Your task to perform on an android device: Add "logitech g910" to the cart on amazon Image 0: 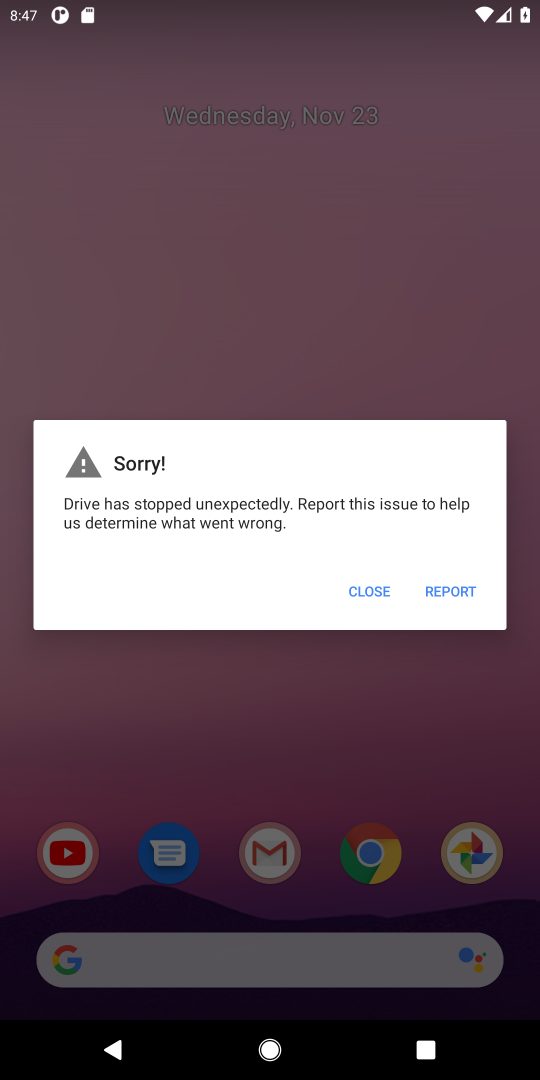
Step 0: press home button
Your task to perform on an android device: Add "logitech g910" to the cart on amazon Image 1: 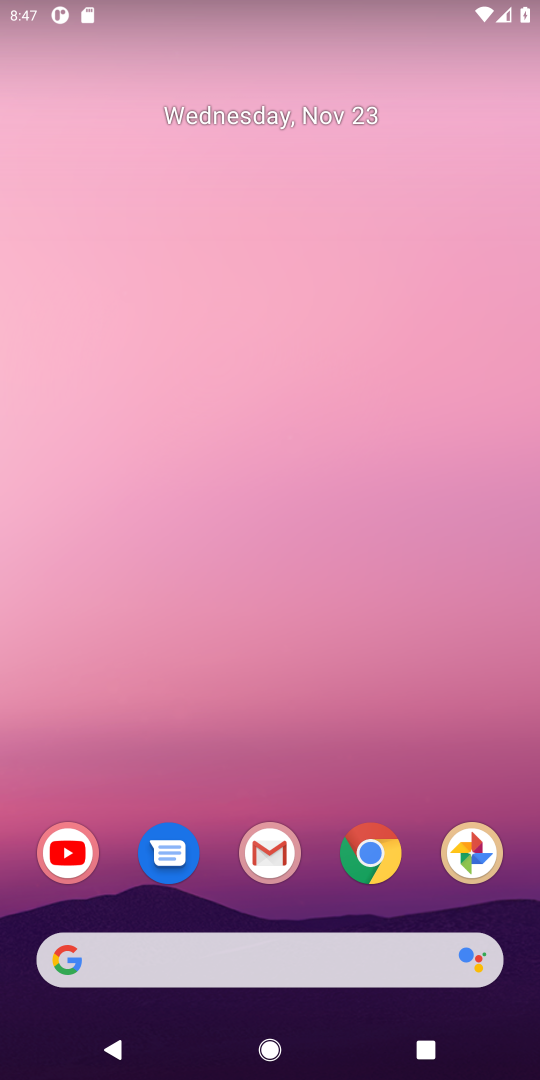
Step 1: click (375, 863)
Your task to perform on an android device: Add "logitech g910" to the cart on amazon Image 2: 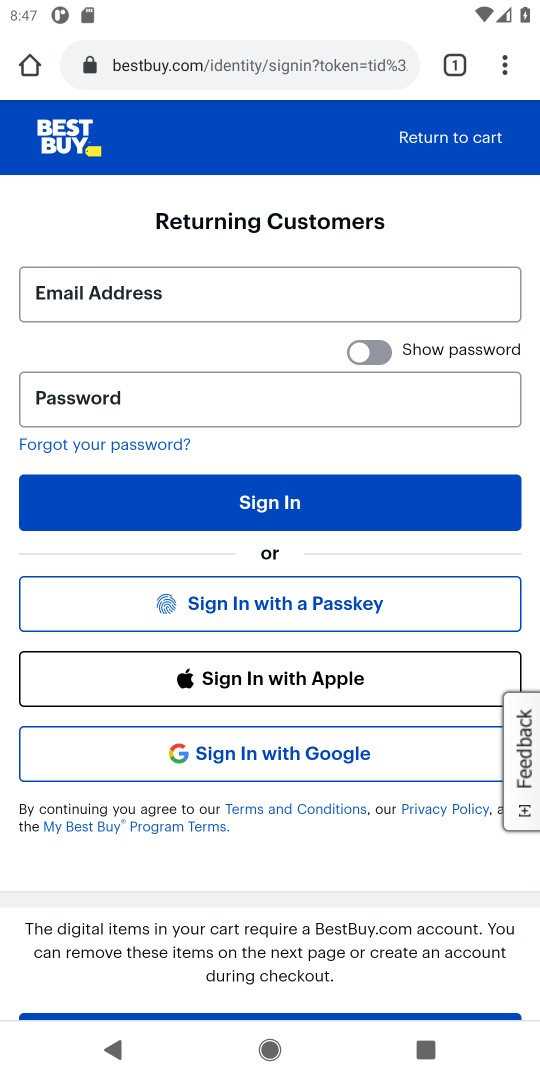
Step 2: click (179, 60)
Your task to perform on an android device: Add "logitech g910" to the cart on amazon Image 3: 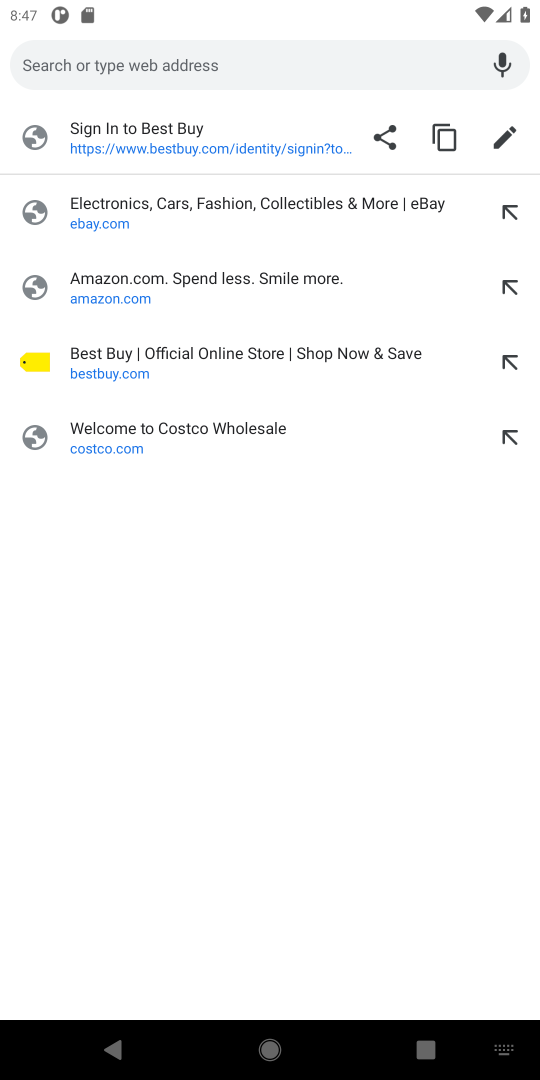
Step 3: click (105, 297)
Your task to perform on an android device: Add "logitech g910" to the cart on amazon Image 4: 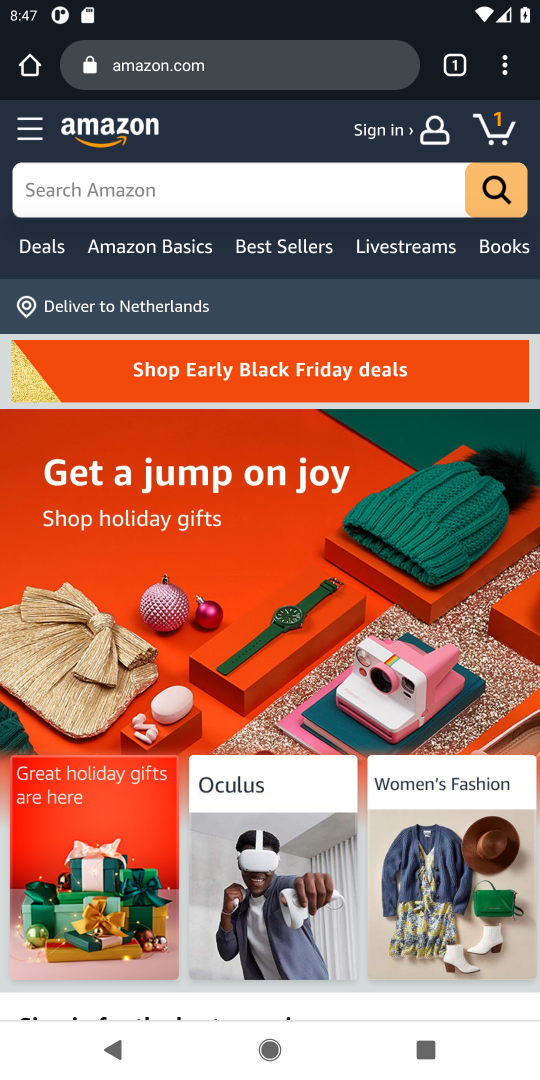
Step 4: click (108, 188)
Your task to perform on an android device: Add "logitech g910" to the cart on amazon Image 5: 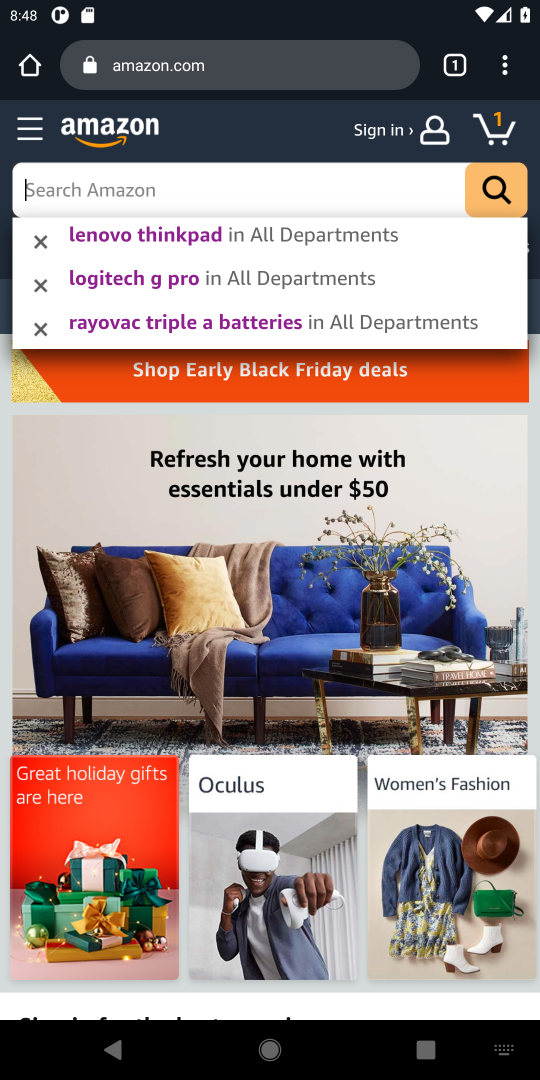
Step 5: type "logitech g910"
Your task to perform on an android device: Add "logitech g910" to the cart on amazon Image 6: 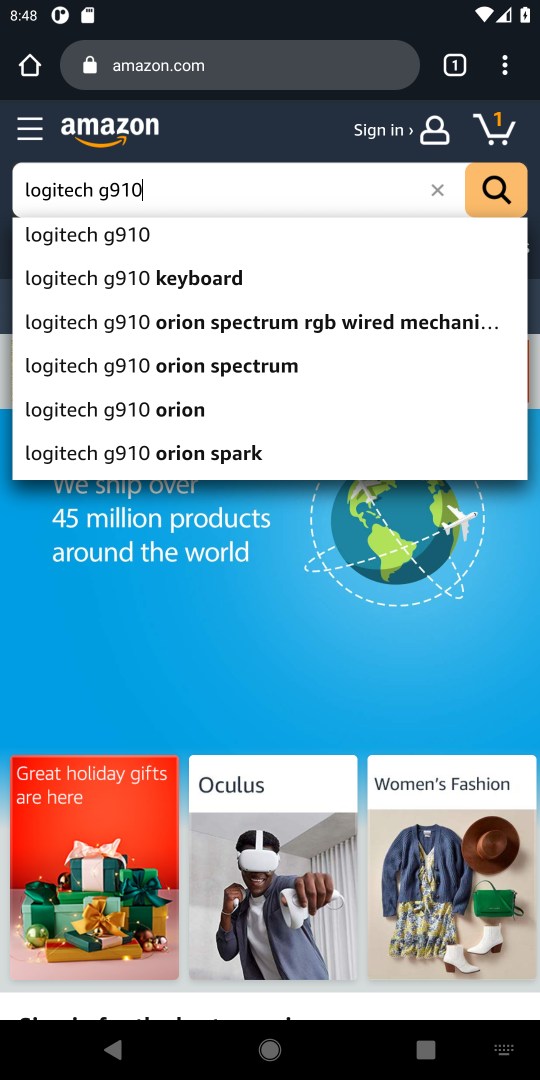
Step 6: click (120, 226)
Your task to perform on an android device: Add "logitech g910" to the cart on amazon Image 7: 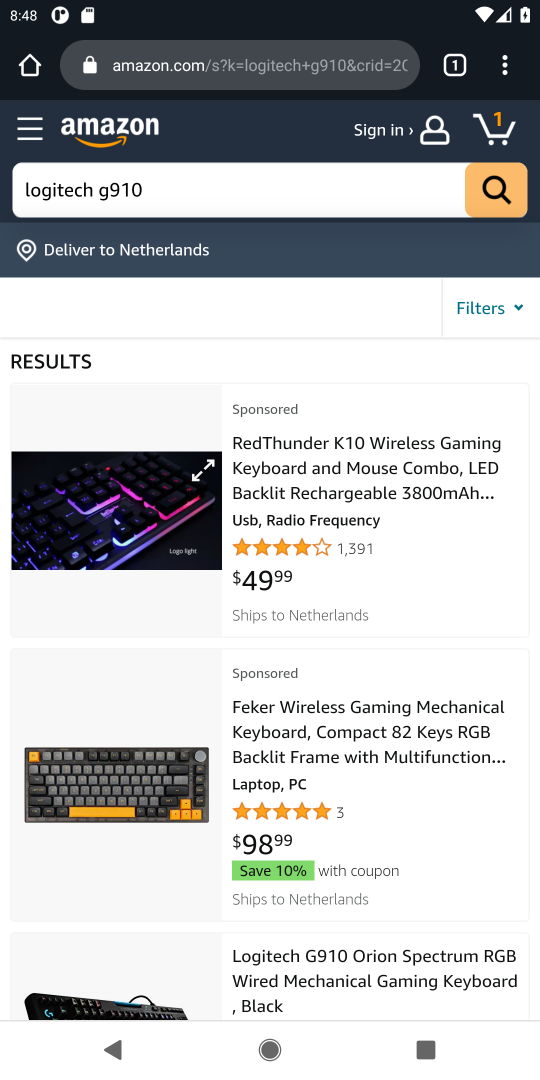
Step 7: drag from (218, 742) to (231, 486)
Your task to perform on an android device: Add "logitech g910" to the cart on amazon Image 8: 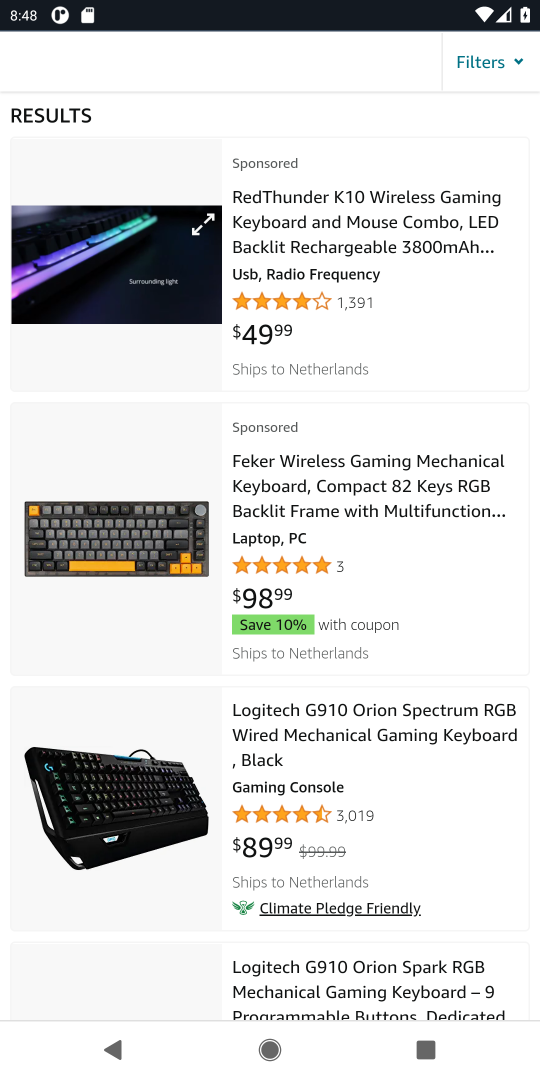
Step 8: click (103, 810)
Your task to perform on an android device: Add "logitech g910" to the cart on amazon Image 9: 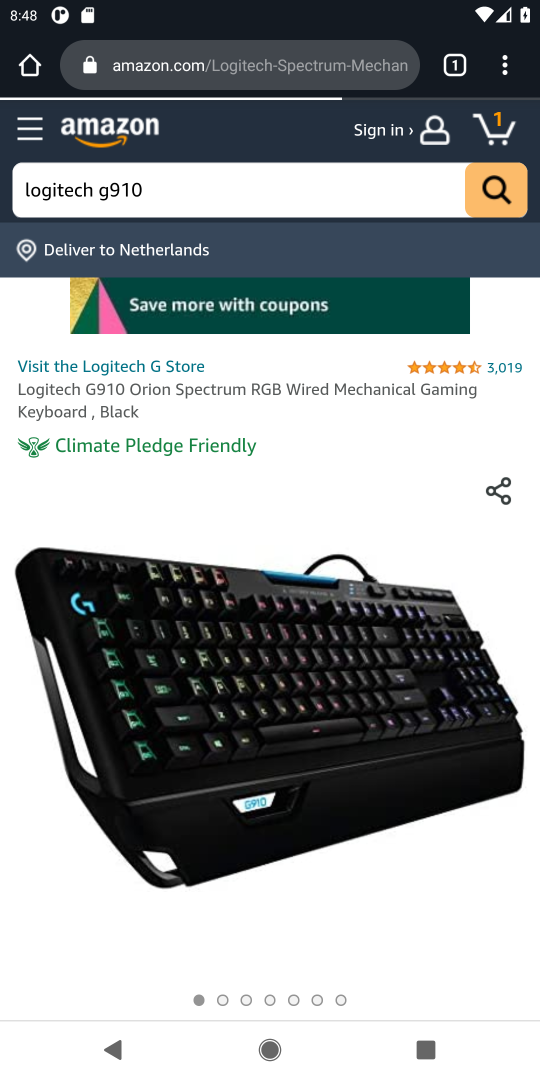
Step 9: drag from (200, 813) to (211, 335)
Your task to perform on an android device: Add "logitech g910" to the cart on amazon Image 10: 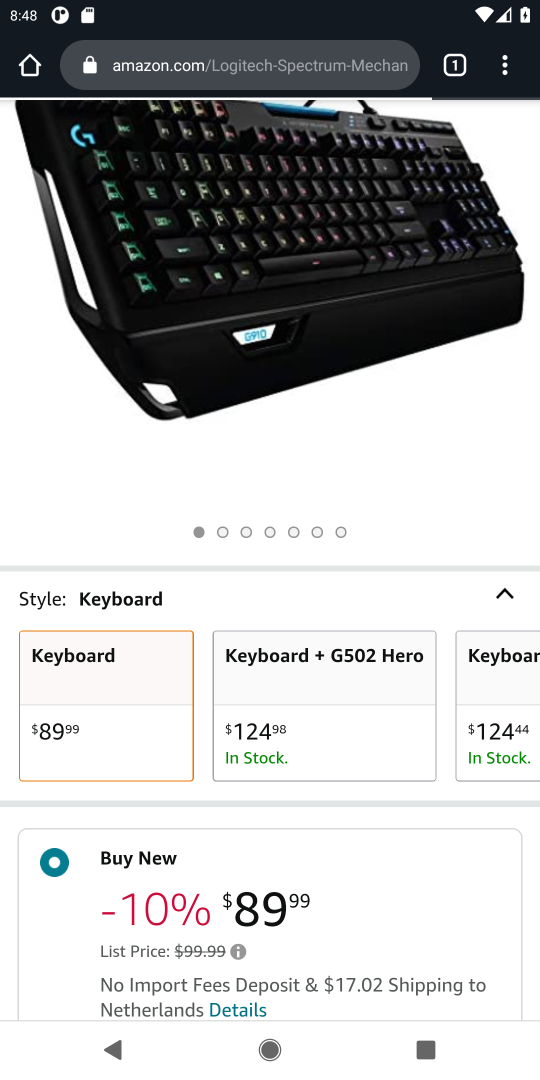
Step 10: drag from (215, 807) to (231, 304)
Your task to perform on an android device: Add "logitech g910" to the cart on amazon Image 11: 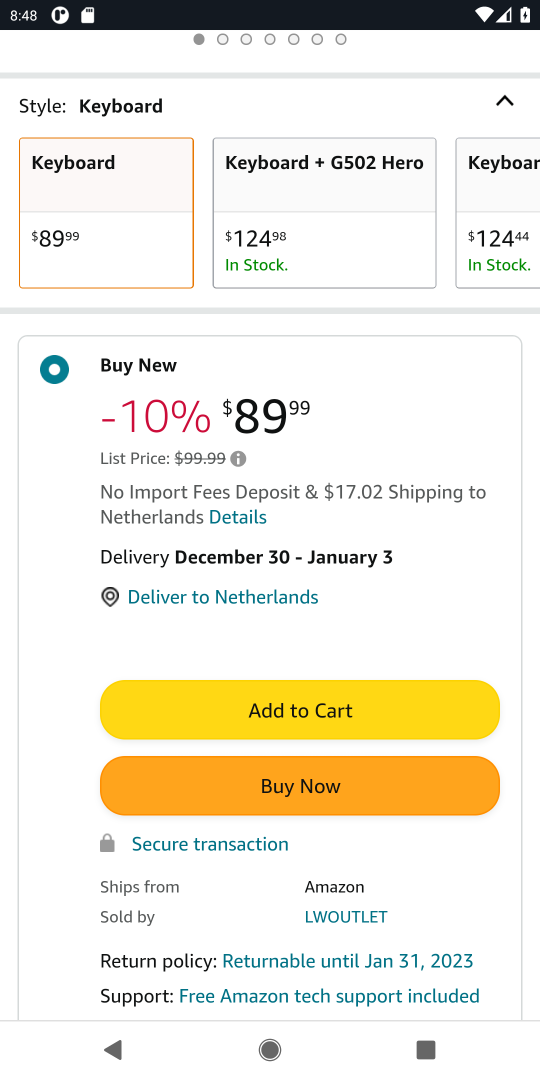
Step 11: click (253, 704)
Your task to perform on an android device: Add "logitech g910" to the cart on amazon Image 12: 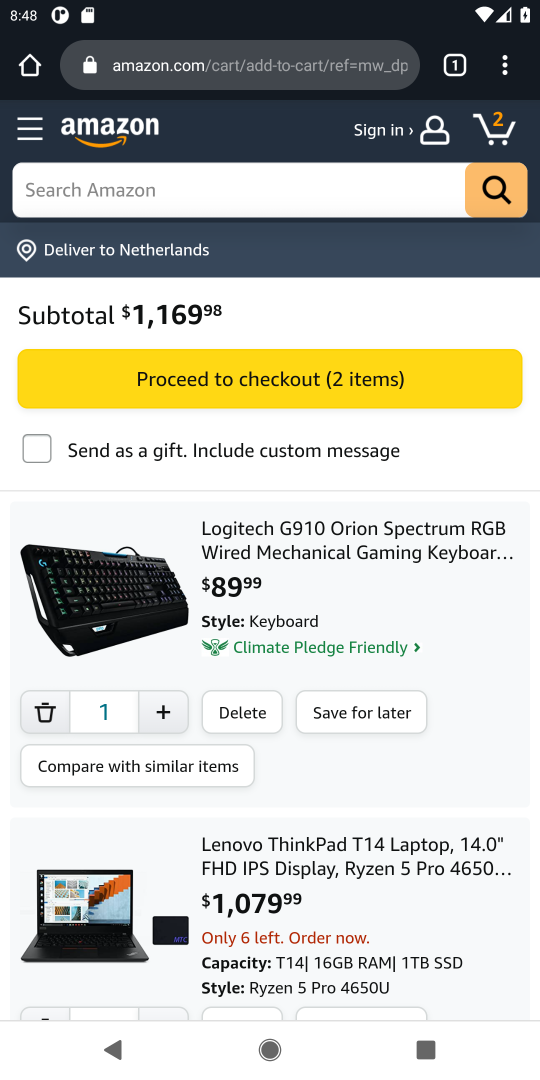
Step 12: task complete